Your task to perform on an android device: Show the shopping cart on newegg.com. Image 0: 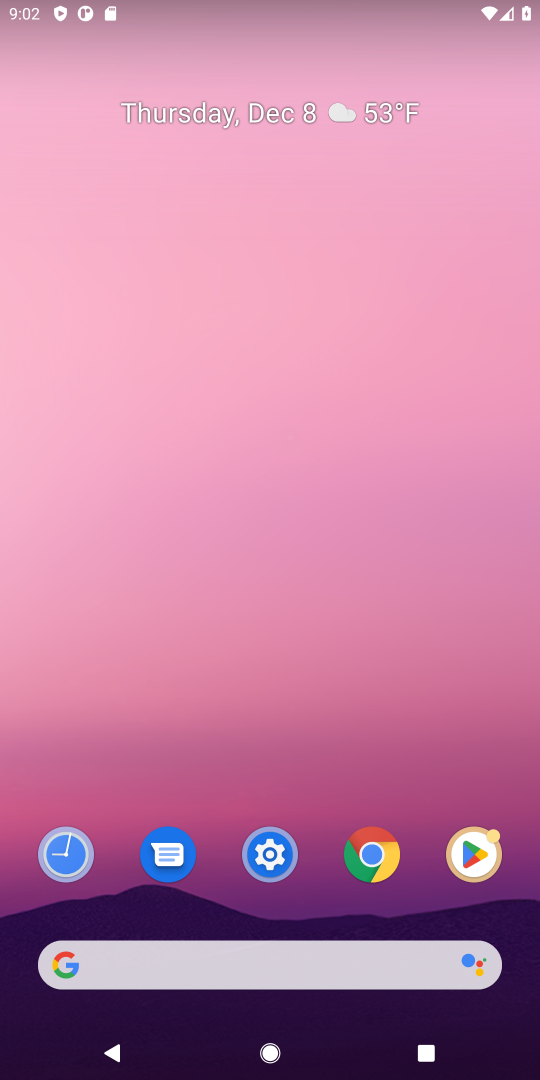
Step 0: press home button
Your task to perform on an android device: Show the shopping cart on newegg.com. Image 1: 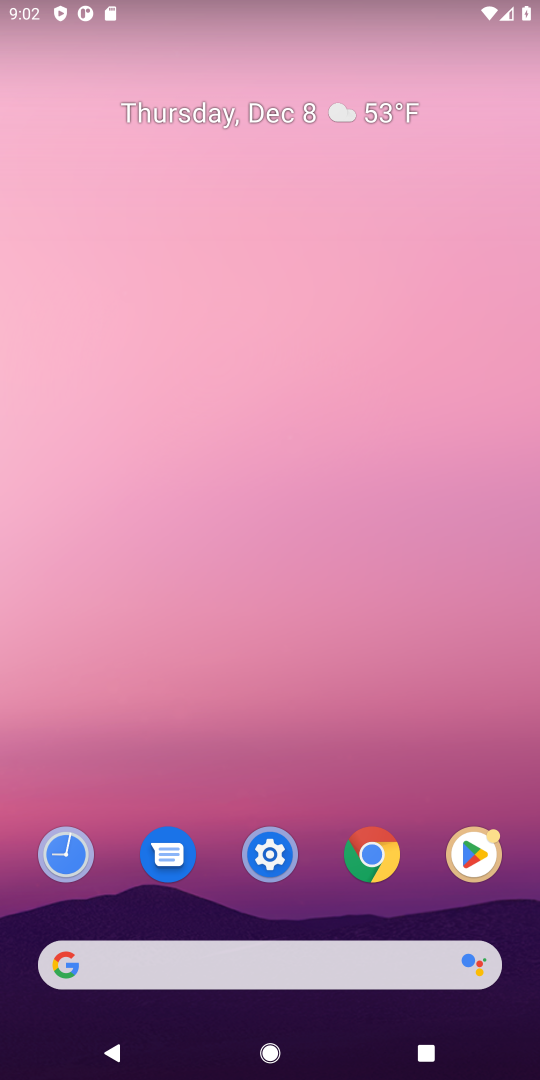
Step 1: click (88, 966)
Your task to perform on an android device: Show the shopping cart on newegg.com. Image 2: 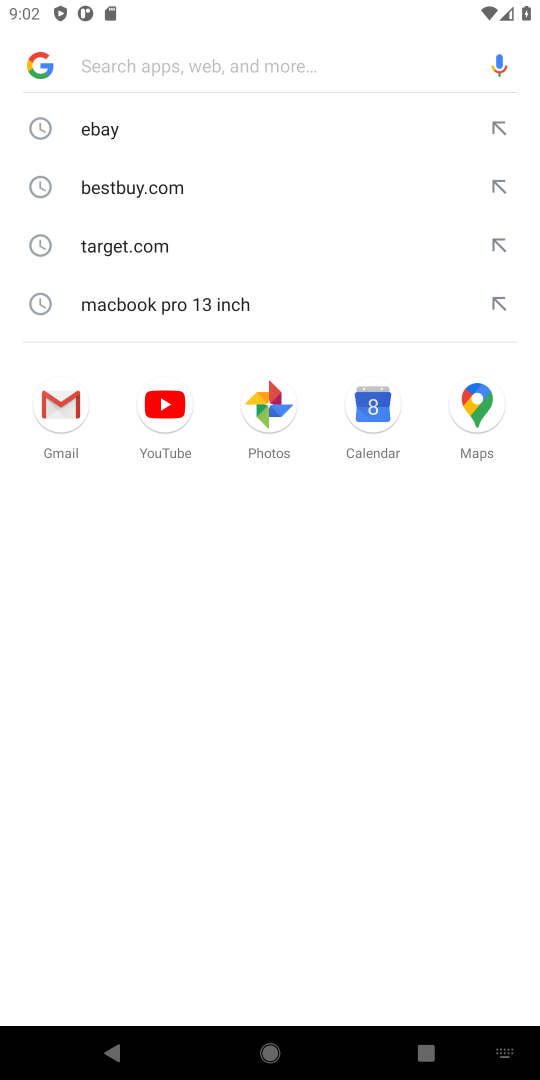
Step 2: type "newegg.com"
Your task to perform on an android device: Show the shopping cart on newegg.com. Image 3: 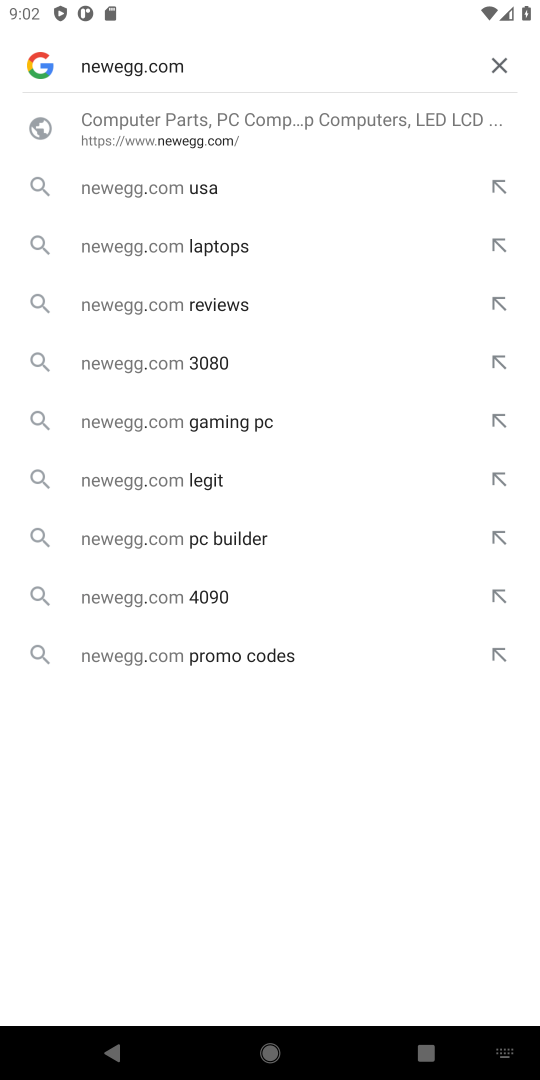
Step 3: press enter
Your task to perform on an android device: Show the shopping cart on newegg.com. Image 4: 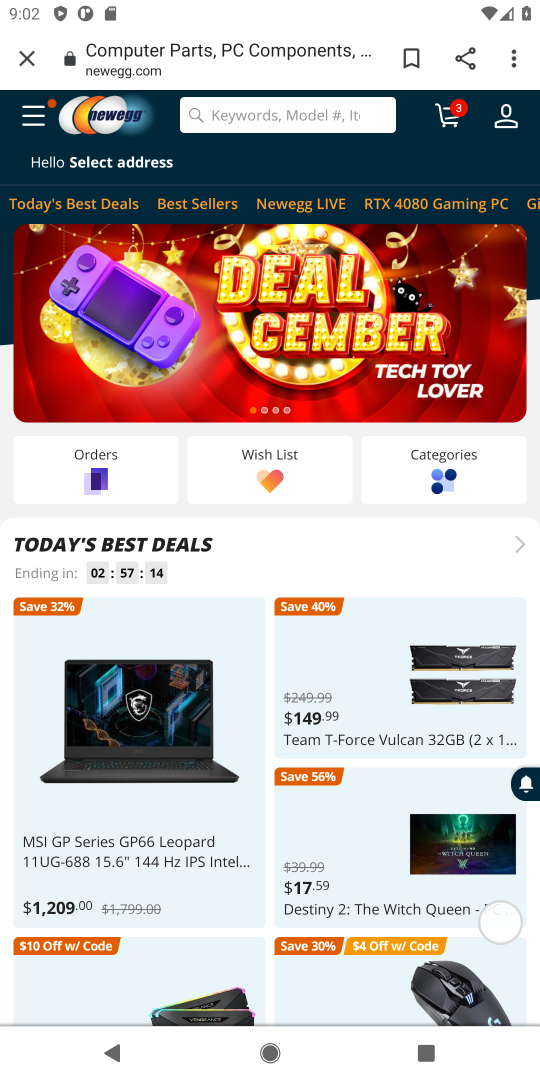
Step 4: click (447, 111)
Your task to perform on an android device: Show the shopping cart on newegg.com. Image 5: 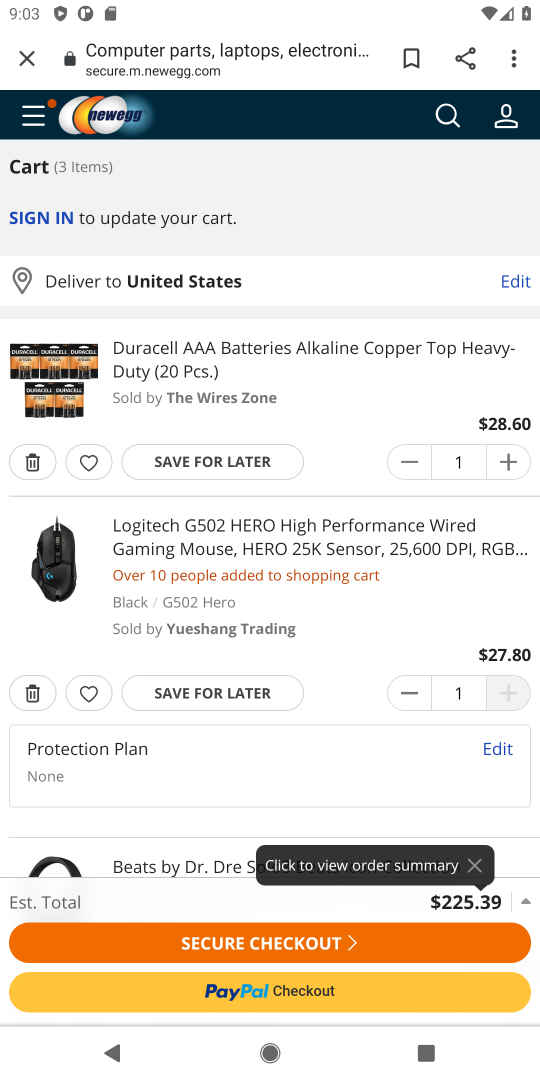
Step 5: task complete